Your task to perform on an android device: Go to display settings Image 0: 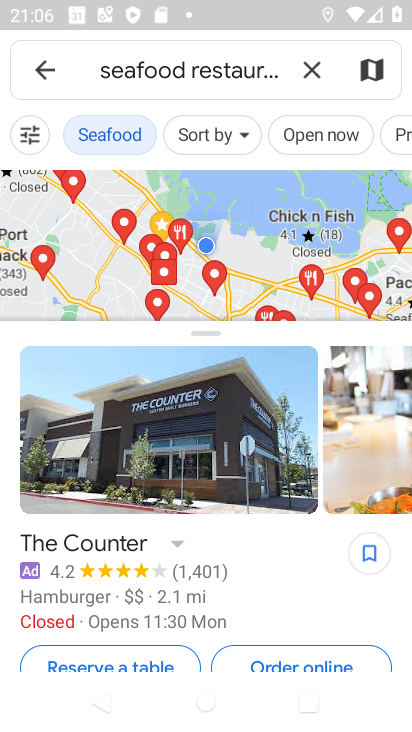
Step 0: press home button
Your task to perform on an android device: Go to display settings Image 1: 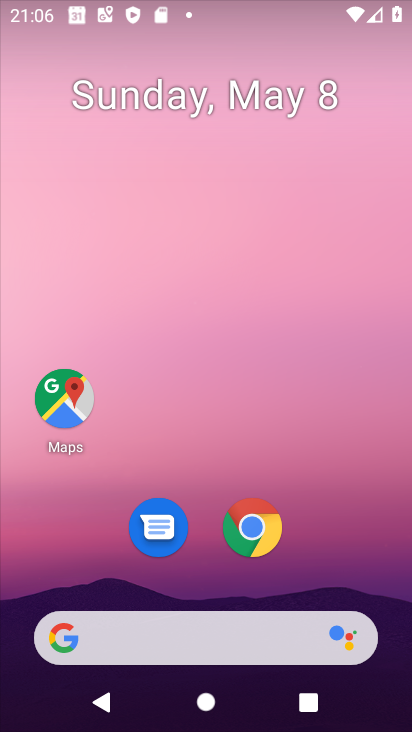
Step 1: drag from (190, 552) to (212, 65)
Your task to perform on an android device: Go to display settings Image 2: 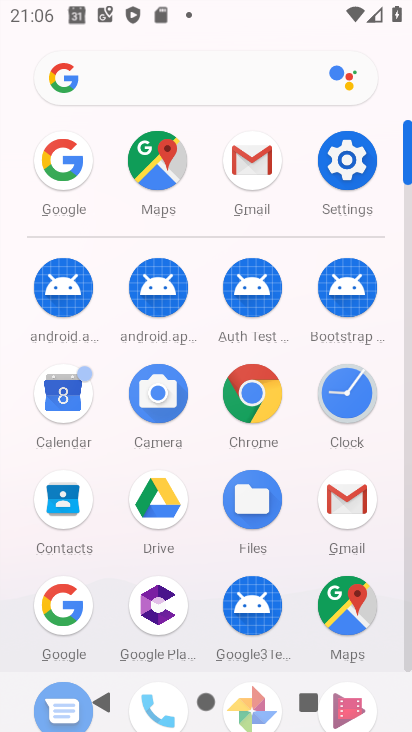
Step 2: click (356, 158)
Your task to perform on an android device: Go to display settings Image 3: 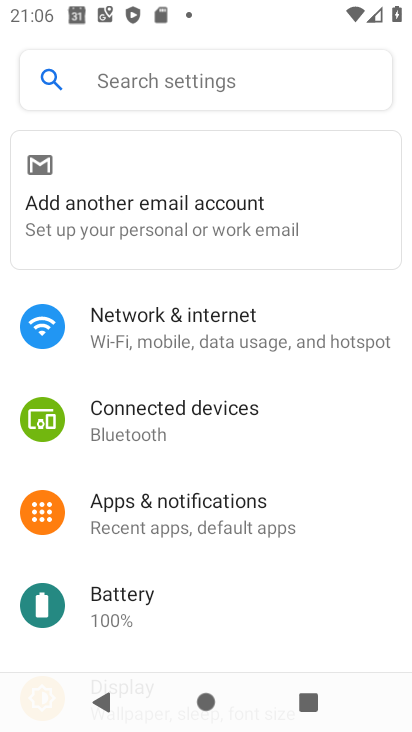
Step 3: drag from (216, 615) to (215, 156)
Your task to perform on an android device: Go to display settings Image 4: 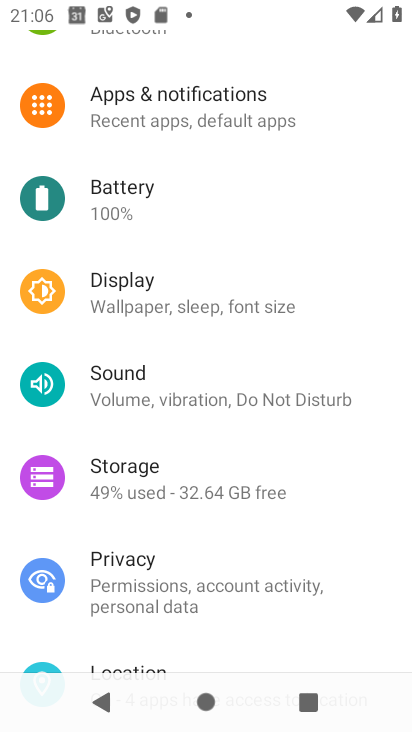
Step 4: click (162, 306)
Your task to perform on an android device: Go to display settings Image 5: 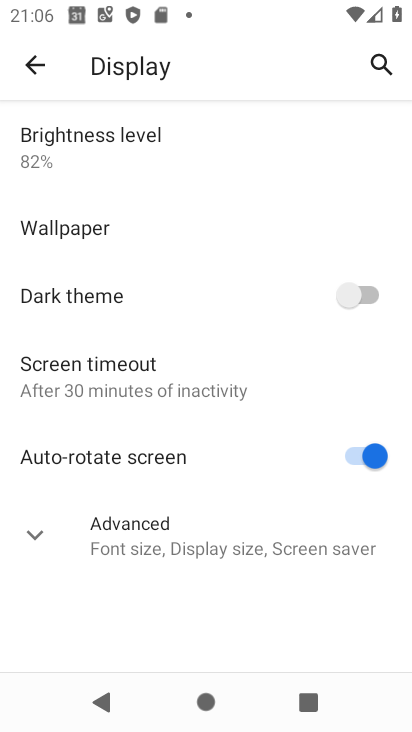
Step 5: task complete